Your task to perform on an android device: What's on my calendar tomorrow? Image 0: 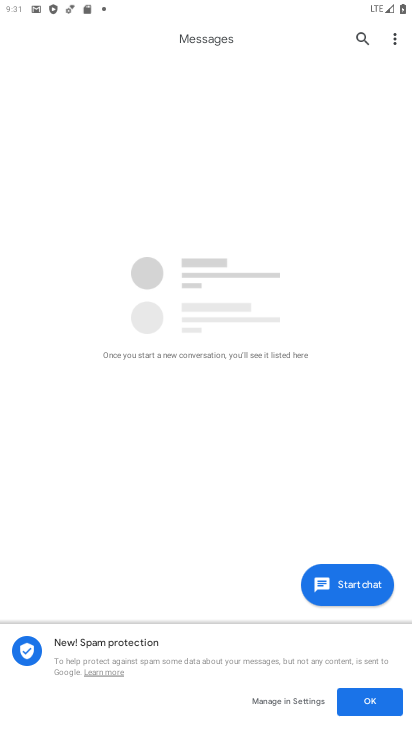
Step 0: press home button
Your task to perform on an android device: What's on my calendar tomorrow? Image 1: 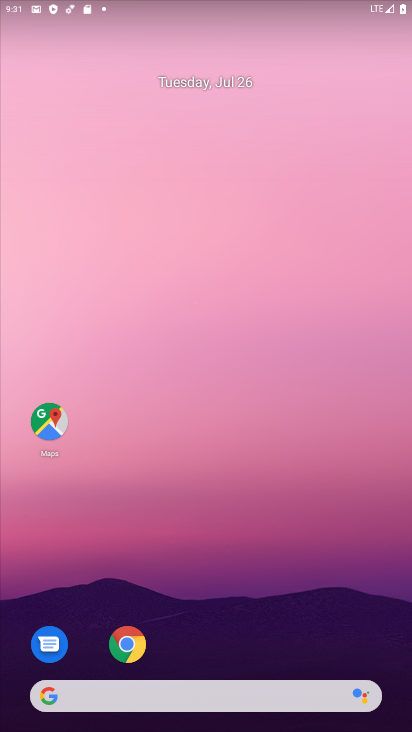
Step 1: drag from (256, 643) to (194, 61)
Your task to perform on an android device: What's on my calendar tomorrow? Image 2: 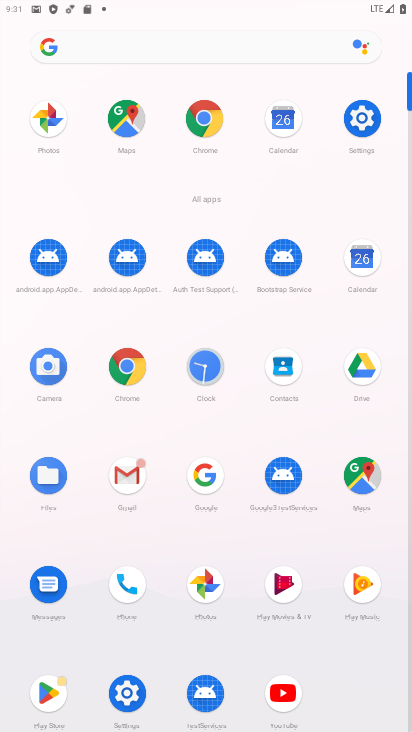
Step 2: click (344, 247)
Your task to perform on an android device: What's on my calendar tomorrow? Image 3: 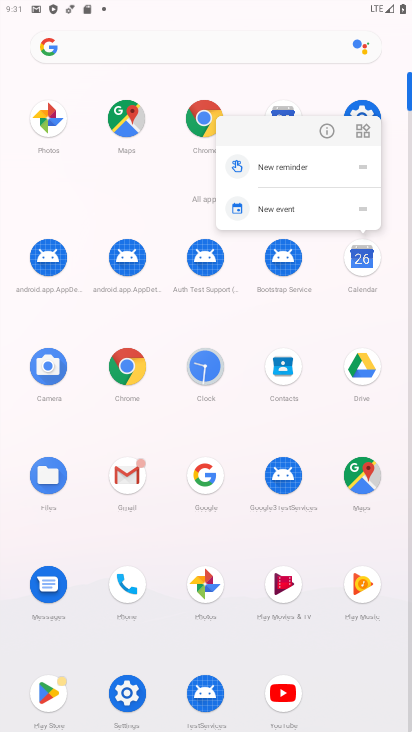
Step 3: click (357, 260)
Your task to perform on an android device: What's on my calendar tomorrow? Image 4: 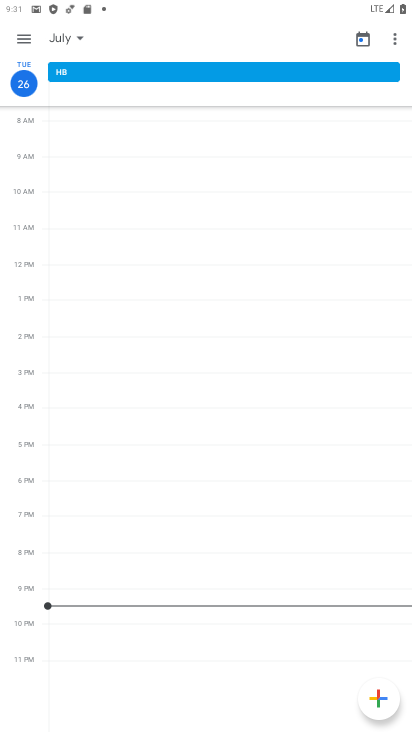
Step 4: click (75, 42)
Your task to perform on an android device: What's on my calendar tomorrow? Image 5: 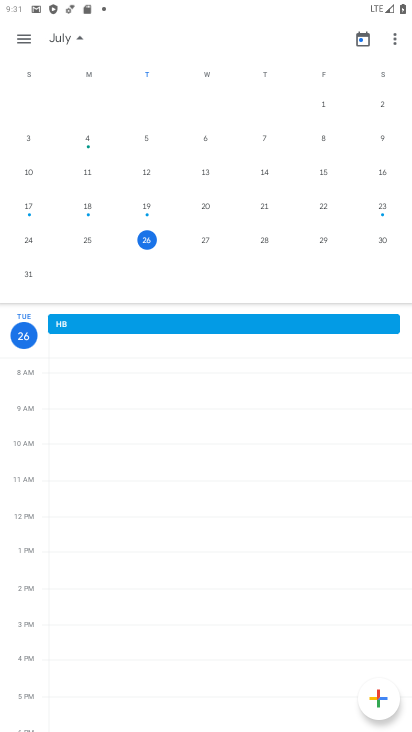
Step 5: click (205, 244)
Your task to perform on an android device: What's on my calendar tomorrow? Image 6: 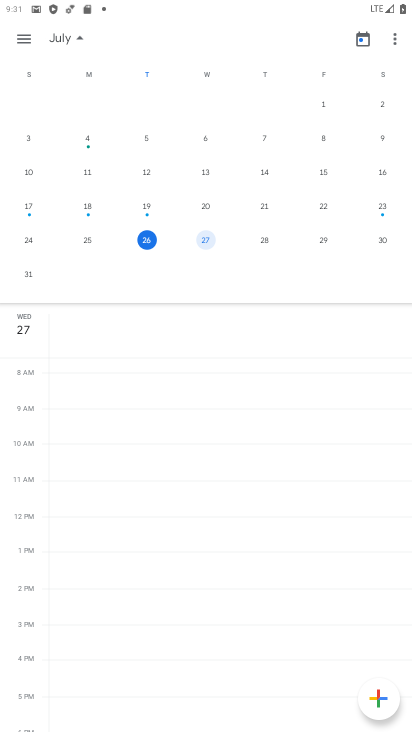
Step 6: click (25, 37)
Your task to perform on an android device: What's on my calendar tomorrow? Image 7: 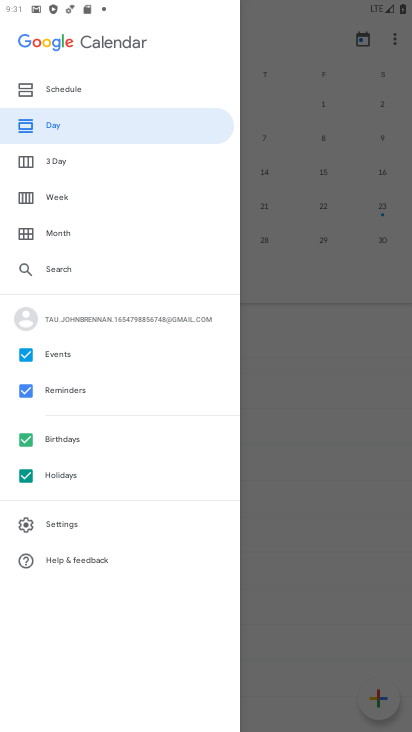
Step 7: click (22, 126)
Your task to perform on an android device: What's on my calendar tomorrow? Image 8: 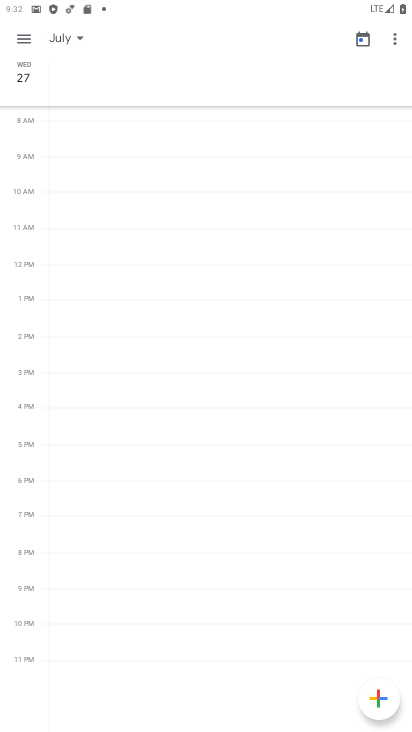
Step 8: task complete